Your task to perform on an android device: View the shopping cart on target. Image 0: 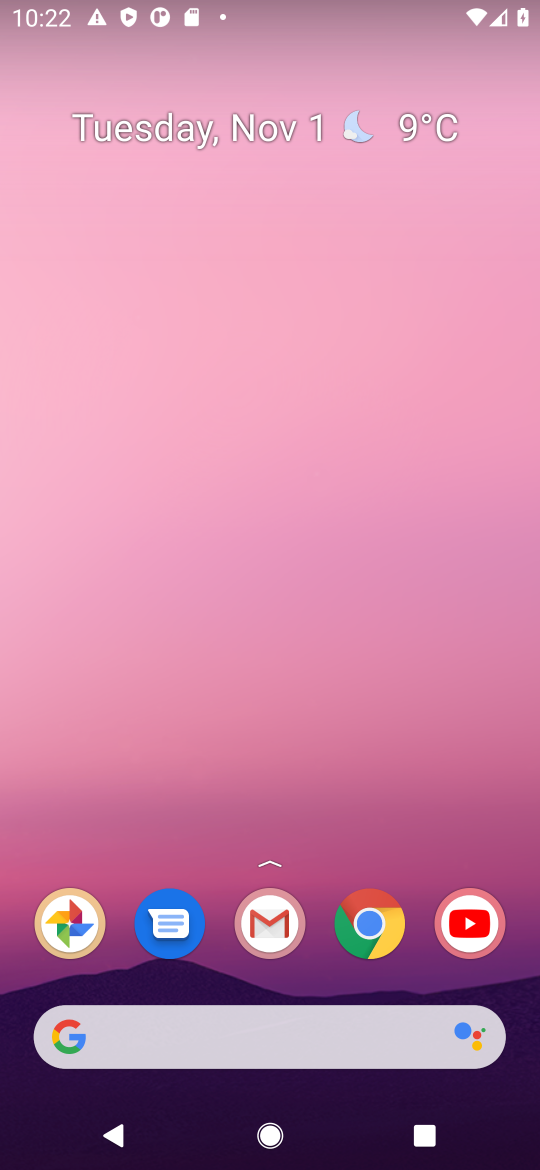
Step 0: drag from (315, 977) to (282, 212)
Your task to perform on an android device: View the shopping cart on target. Image 1: 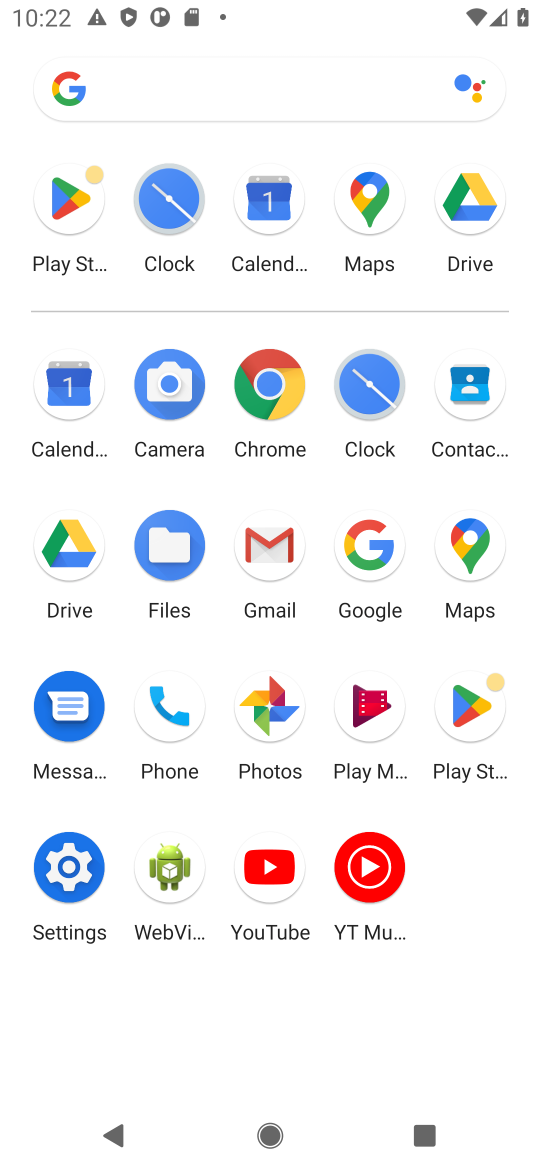
Step 1: click (281, 376)
Your task to perform on an android device: View the shopping cart on target. Image 2: 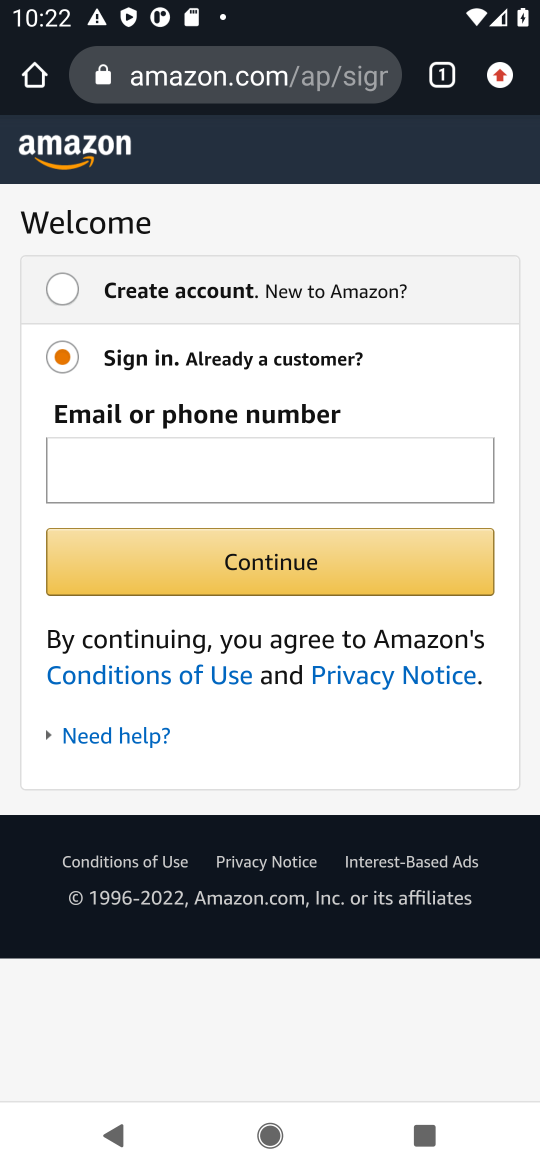
Step 2: click (230, 70)
Your task to perform on an android device: View the shopping cart on target. Image 3: 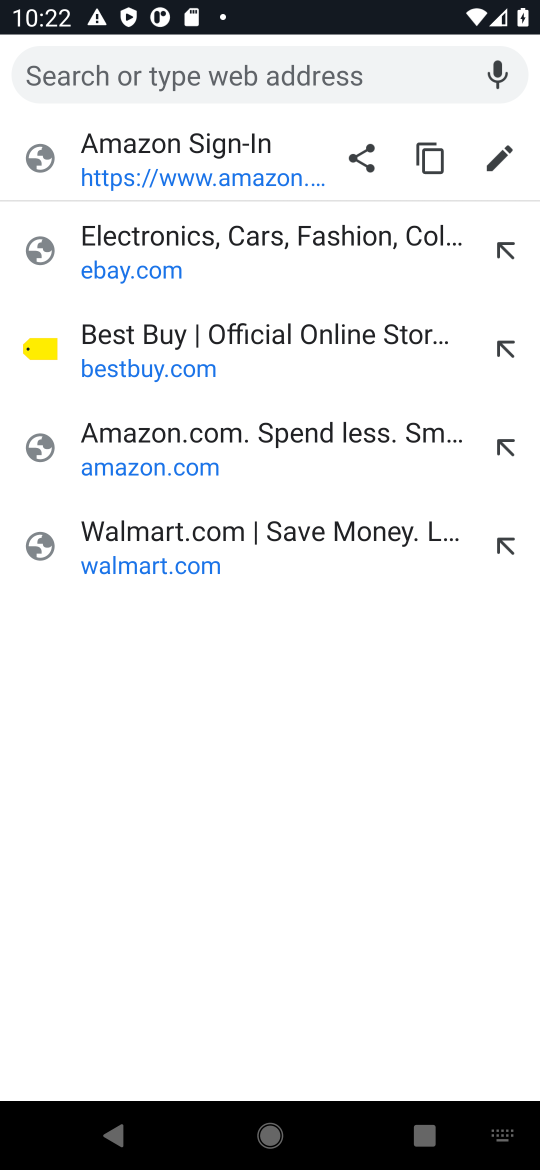
Step 3: type "target.com"
Your task to perform on an android device: View the shopping cart on target. Image 4: 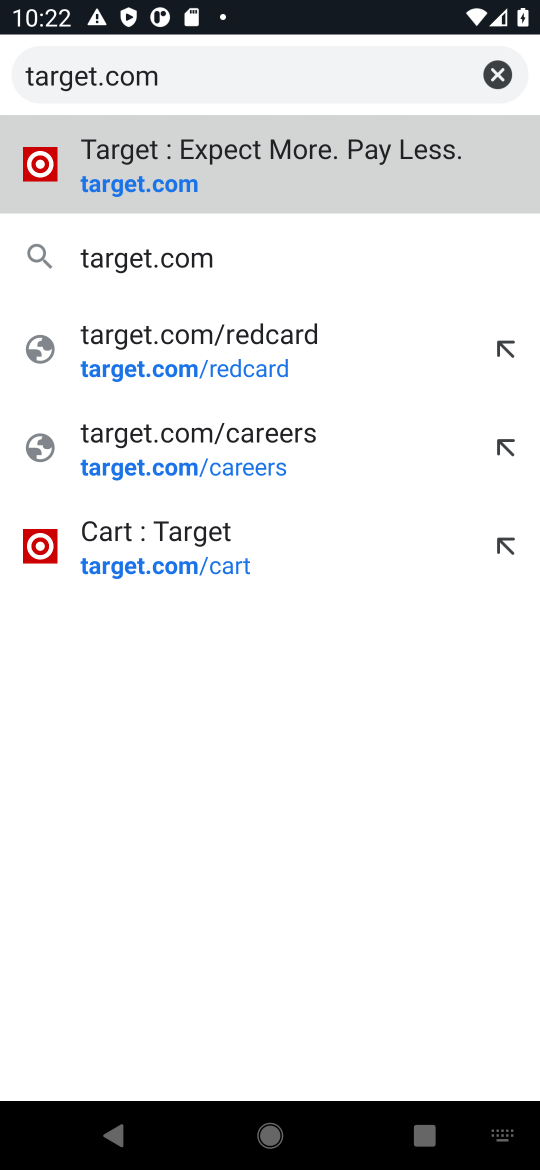
Step 4: press enter
Your task to perform on an android device: View the shopping cart on target. Image 5: 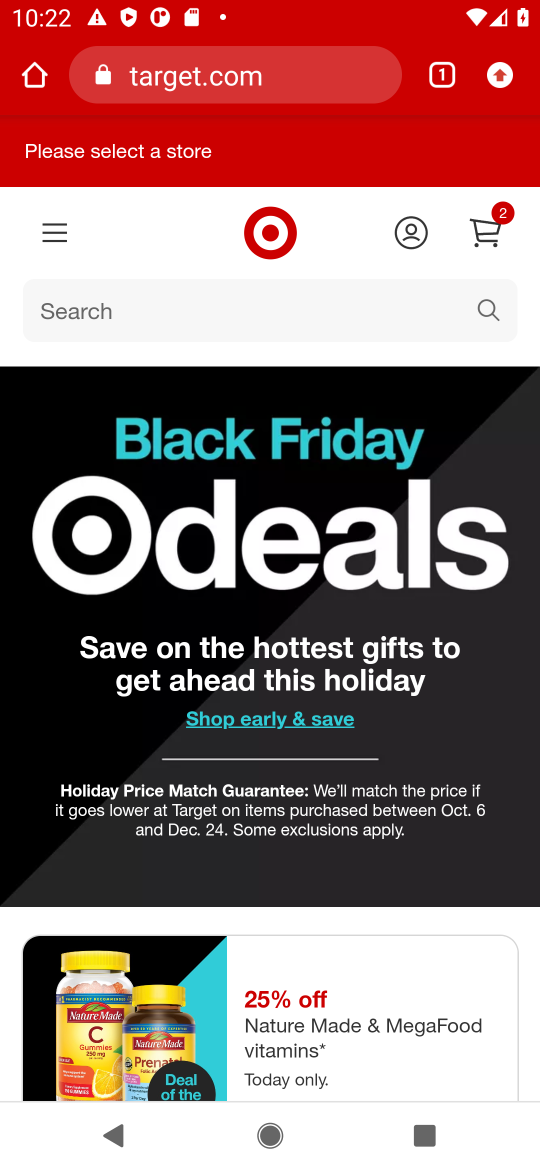
Step 5: click (488, 231)
Your task to perform on an android device: View the shopping cart on target. Image 6: 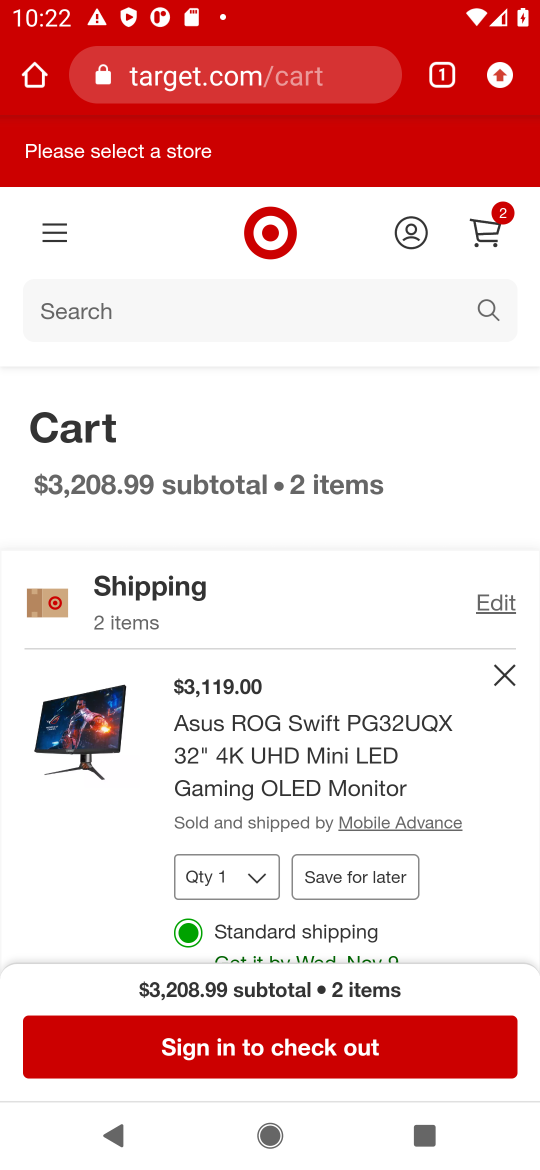
Step 6: drag from (202, 899) to (234, 568)
Your task to perform on an android device: View the shopping cart on target. Image 7: 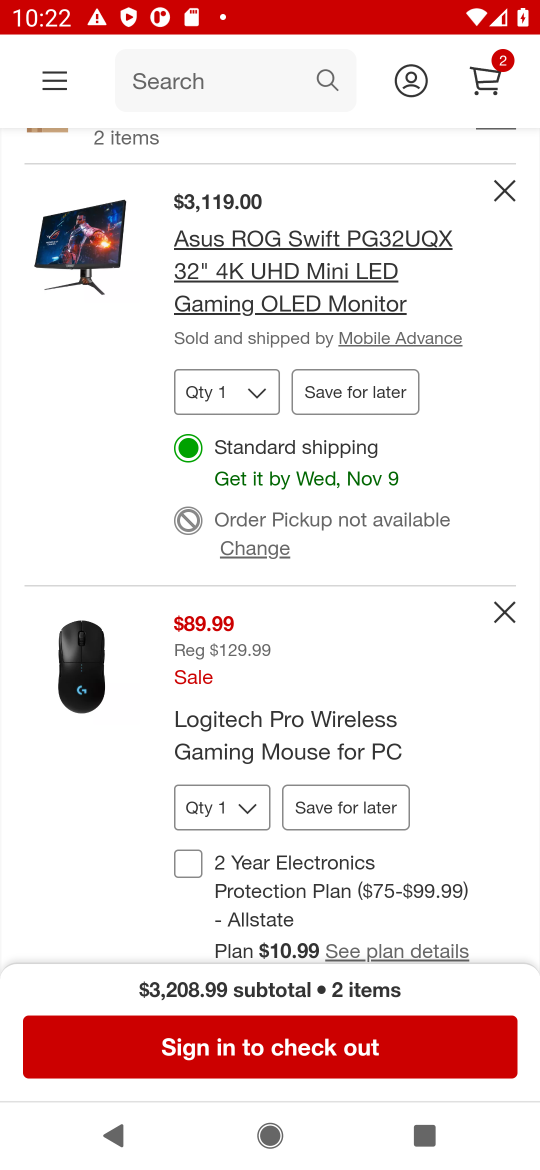
Step 7: click (506, 175)
Your task to perform on an android device: View the shopping cart on target. Image 8: 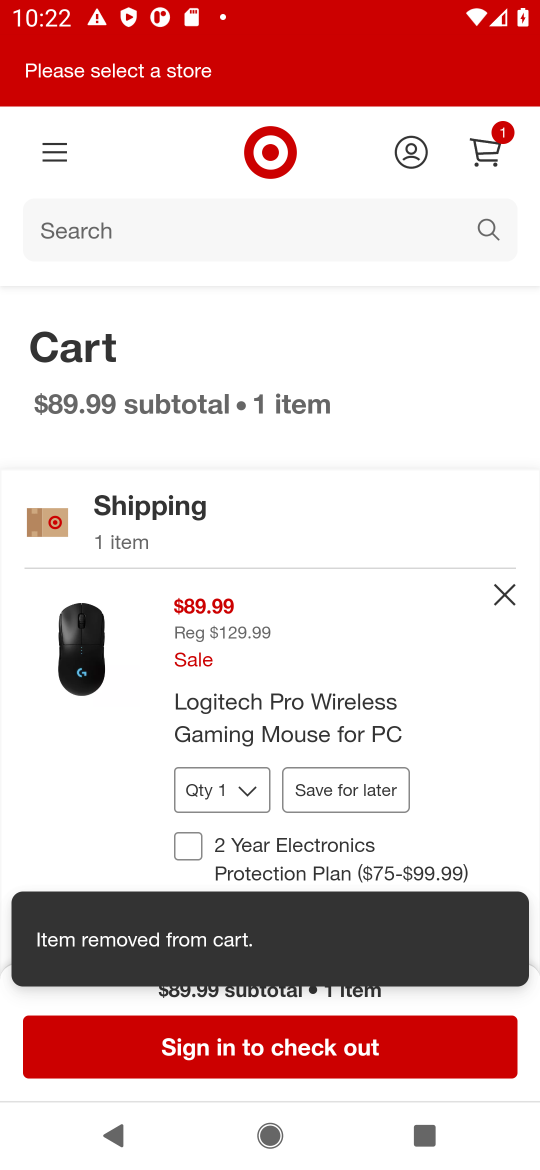
Step 8: click (499, 595)
Your task to perform on an android device: View the shopping cart on target. Image 9: 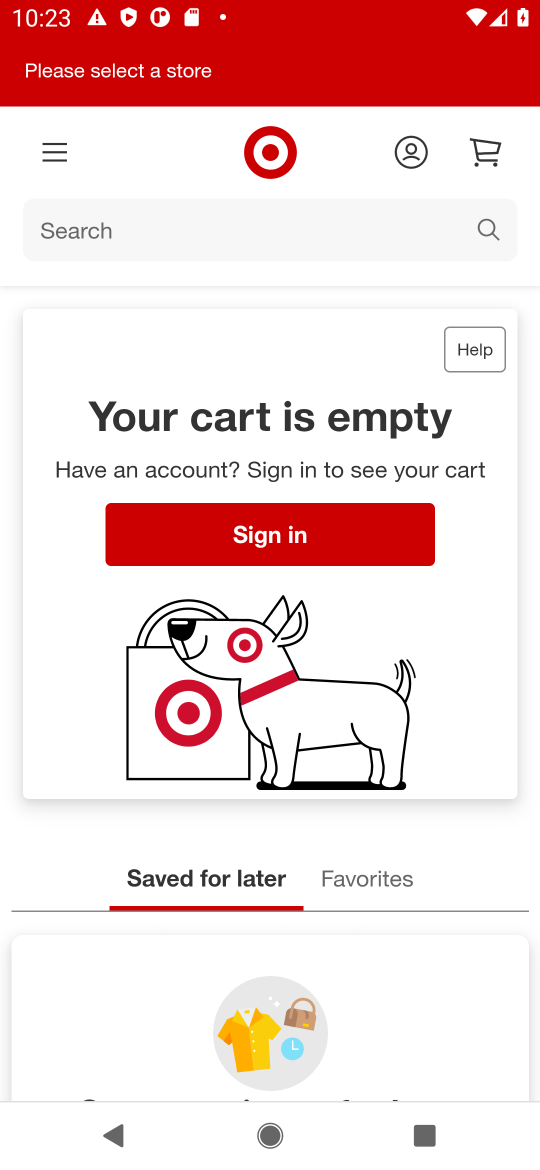
Step 9: task complete